Your task to perform on an android device: Open eBay Image 0: 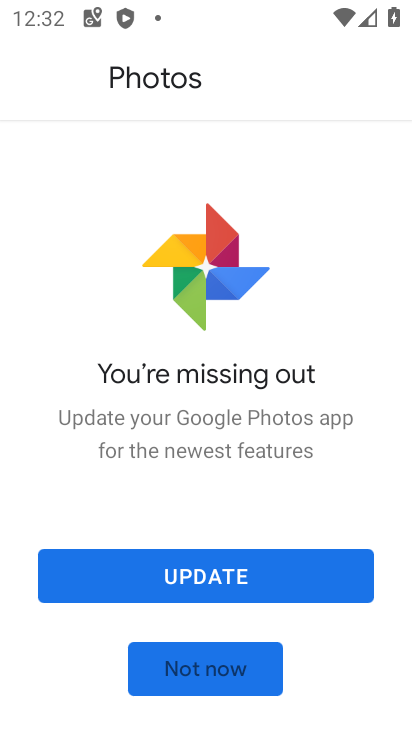
Step 0: press home button
Your task to perform on an android device: Open eBay Image 1: 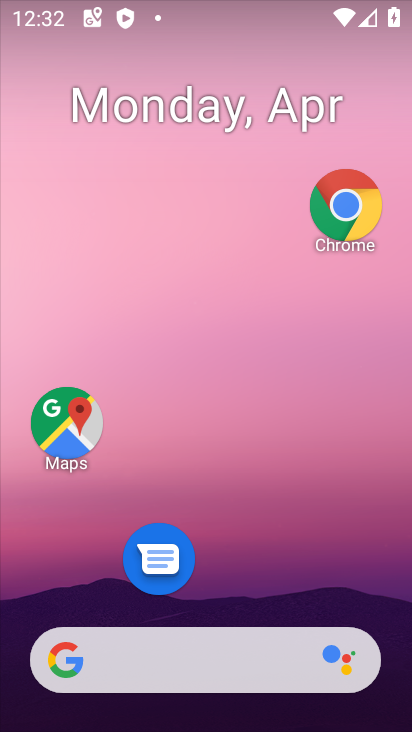
Step 1: click (356, 215)
Your task to perform on an android device: Open eBay Image 2: 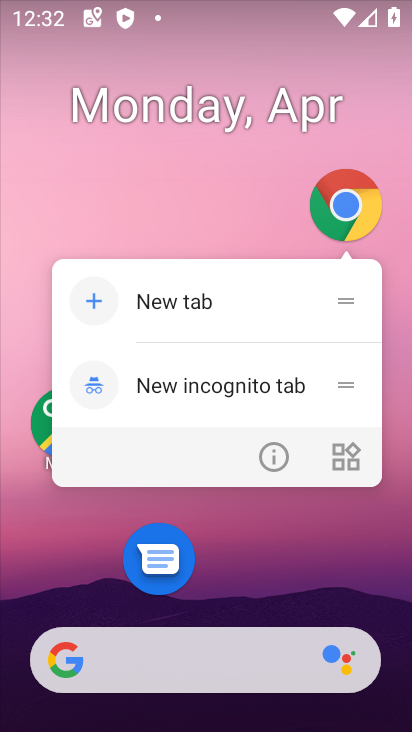
Step 2: click (186, 300)
Your task to perform on an android device: Open eBay Image 3: 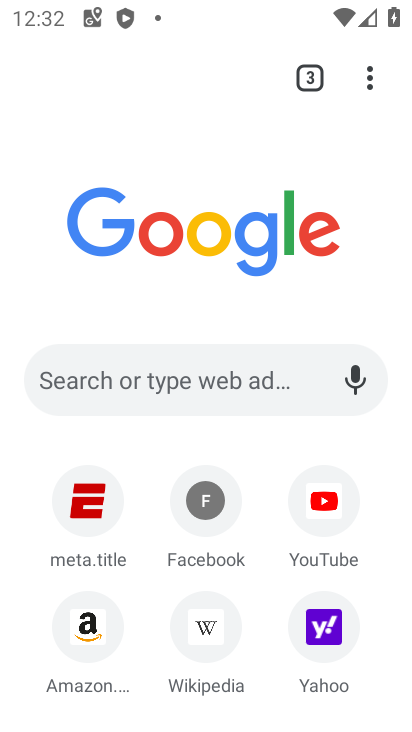
Step 3: click (193, 384)
Your task to perform on an android device: Open eBay Image 4: 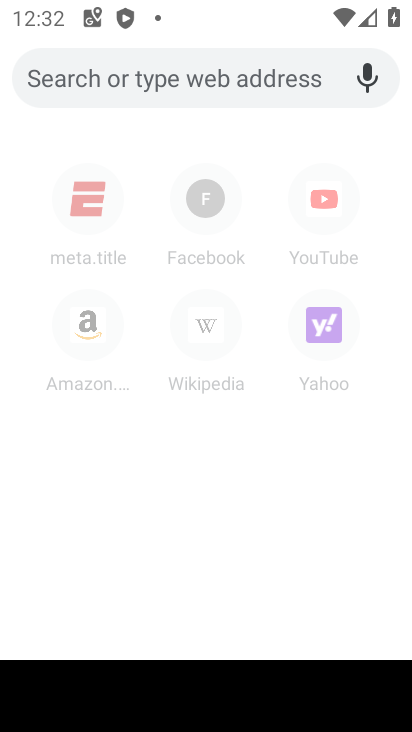
Step 4: type "eBay"
Your task to perform on an android device: Open eBay Image 5: 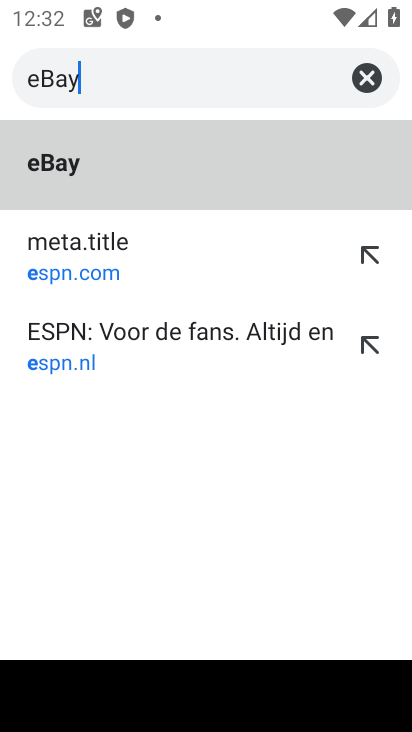
Step 5: type ""
Your task to perform on an android device: Open eBay Image 6: 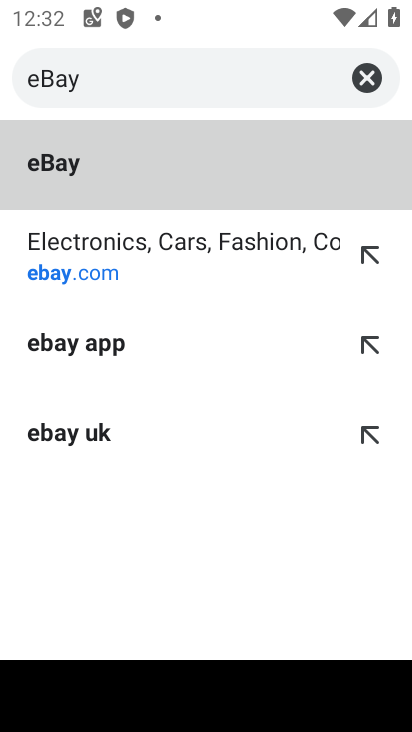
Step 6: click (182, 190)
Your task to perform on an android device: Open eBay Image 7: 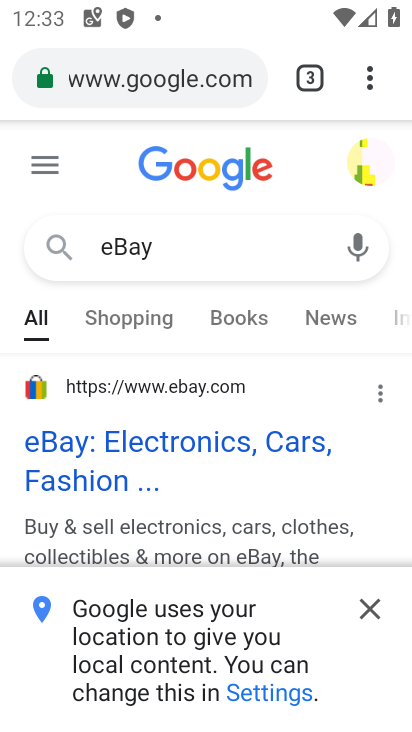
Step 7: click (376, 611)
Your task to perform on an android device: Open eBay Image 8: 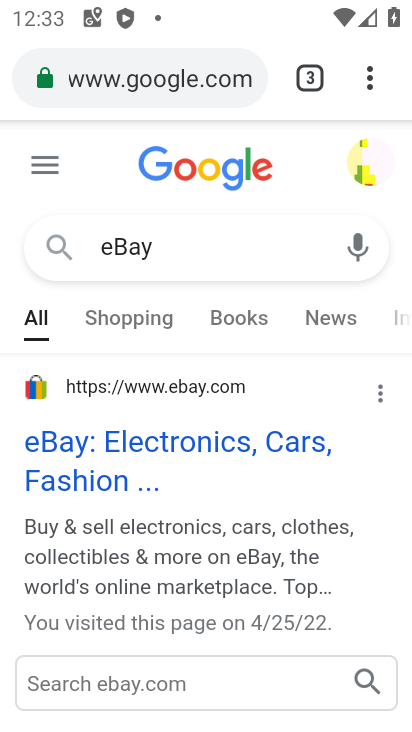
Step 8: click (213, 464)
Your task to perform on an android device: Open eBay Image 9: 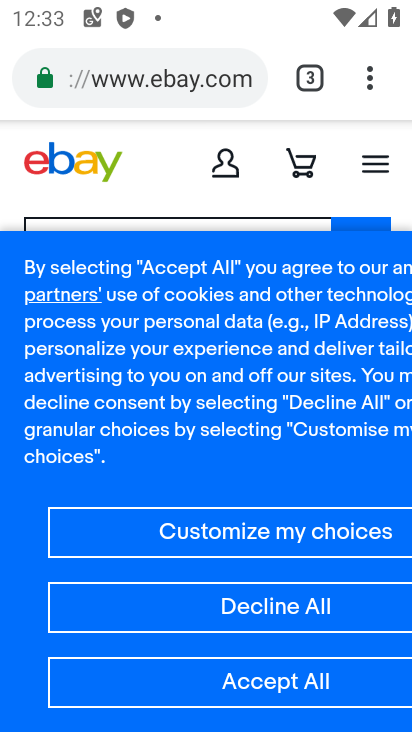
Step 9: task complete